Your task to perform on an android device: allow cookies in the chrome app Image 0: 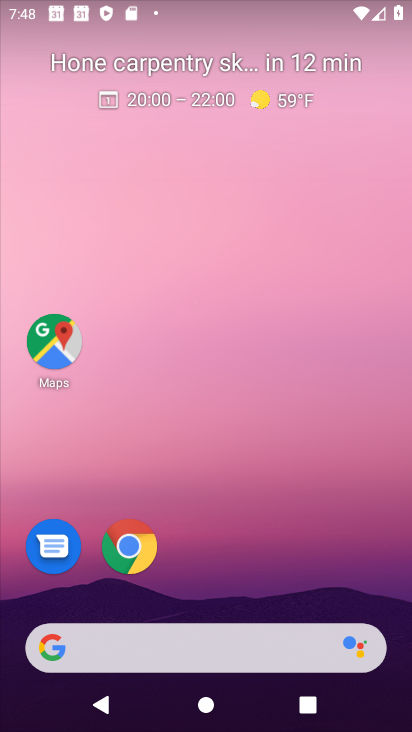
Step 0: click (149, 537)
Your task to perform on an android device: allow cookies in the chrome app Image 1: 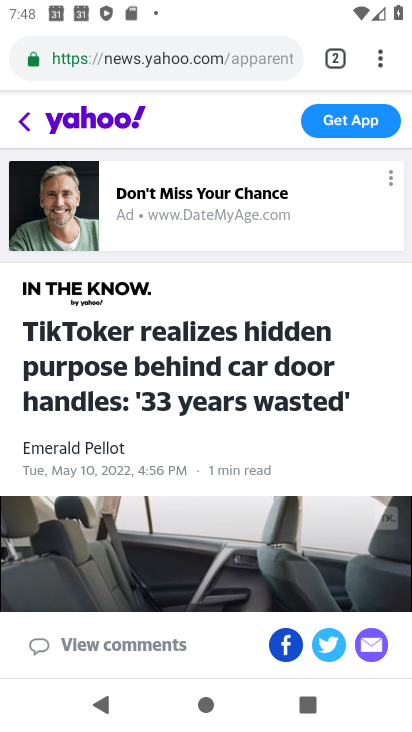
Step 1: click (381, 62)
Your task to perform on an android device: allow cookies in the chrome app Image 2: 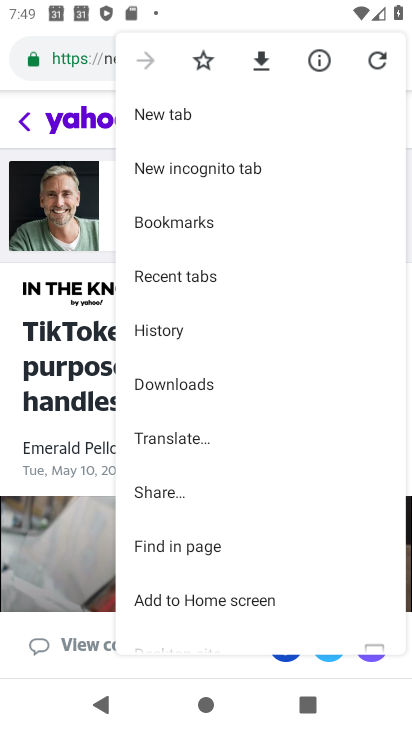
Step 2: drag from (225, 491) to (222, 221)
Your task to perform on an android device: allow cookies in the chrome app Image 3: 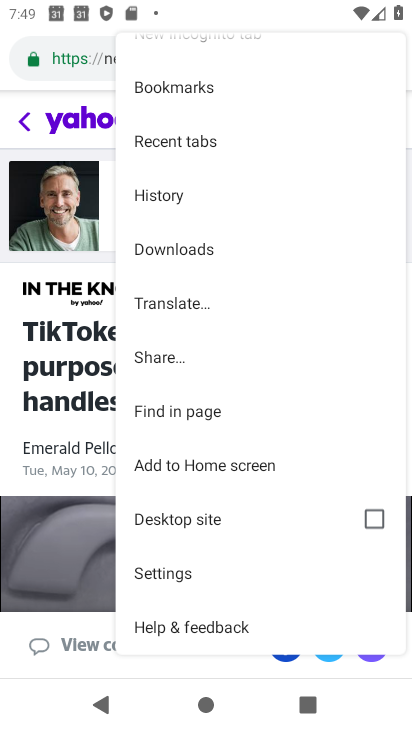
Step 3: click (204, 570)
Your task to perform on an android device: allow cookies in the chrome app Image 4: 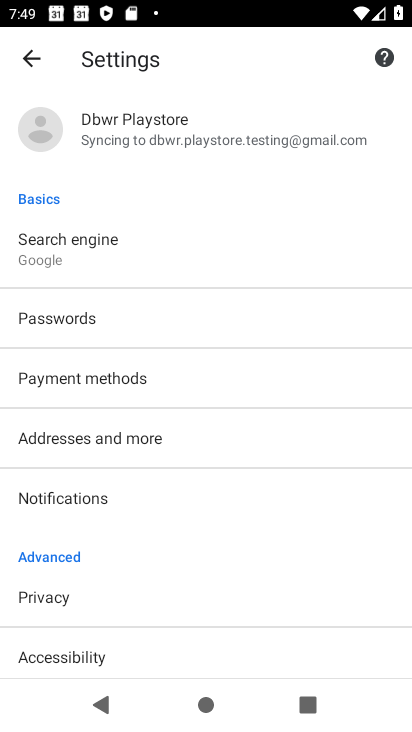
Step 4: drag from (300, 582) to (276, 425)
Your task to perform on an android device: allow cookies in the chrome app Image 5: 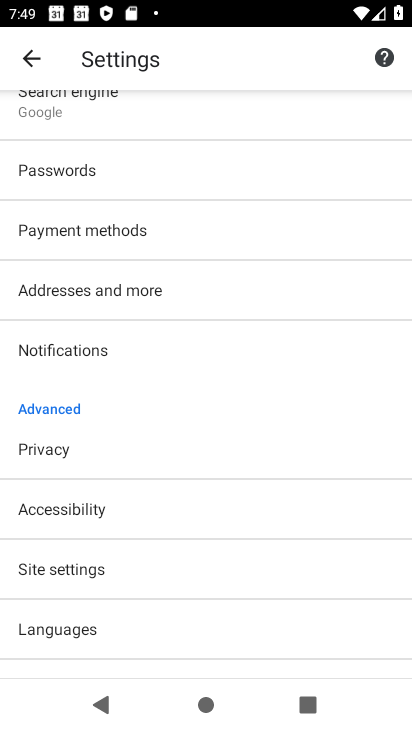
Step 5: click (165, 575)
Your task to perform on an android device: allow cookies in the chrome app Image 6: 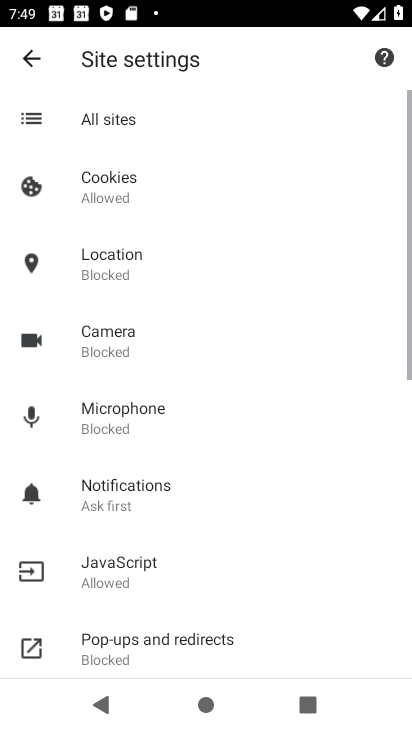
Step 6: click (165, 575)
Your task to perform on an android device: allow cookies in the chrome app Image 7: 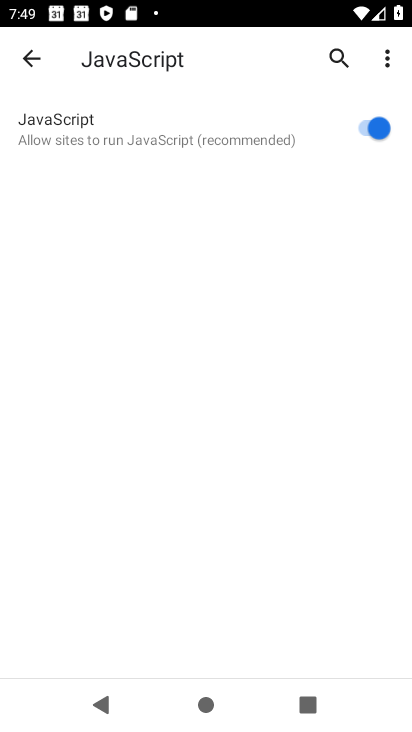
Step 7: click (25, 53)
Your task to perform on an android device: allow cookies in the chrome app Image 8: 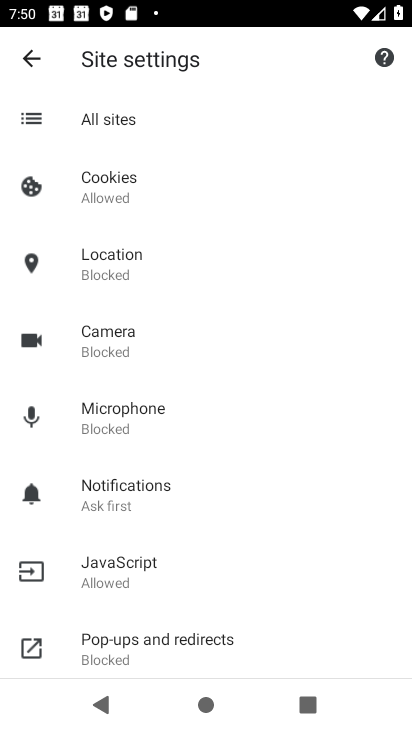
Step 8: click (122, 196)
Your task to perform on an android device: allow cookies in the chrome app Image 9: 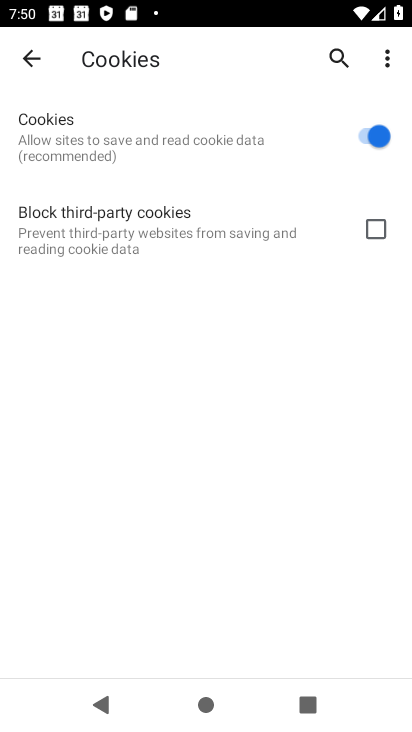
Step 9: task complete